Your task to perform on an android device: check android version Image 0: 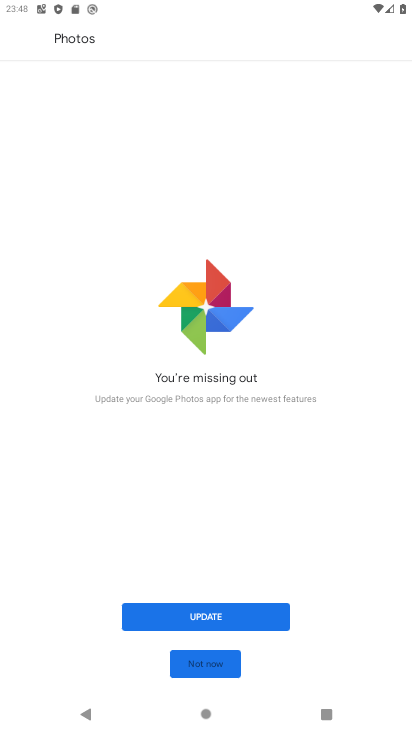
Step 0: press home button
Your task to perform on an android device: check android version Image 1: 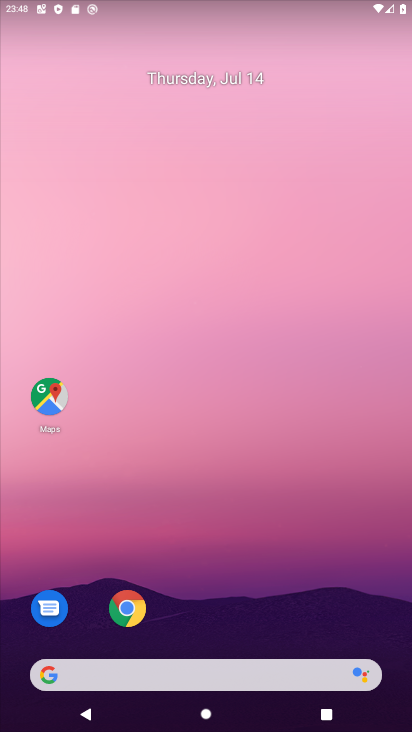
Step 1: drag from (36, 676) to (223, 50)
Your task to perform on an android device: check android version Image 2: 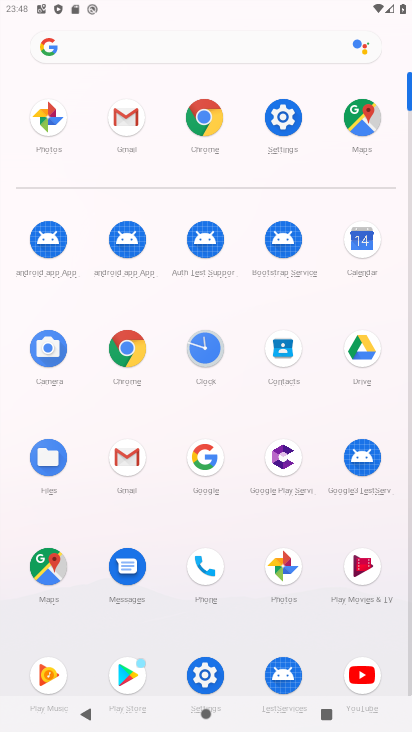
Step 2: click (205, 678)
Your task to perform on an android device: check android version Image 3: 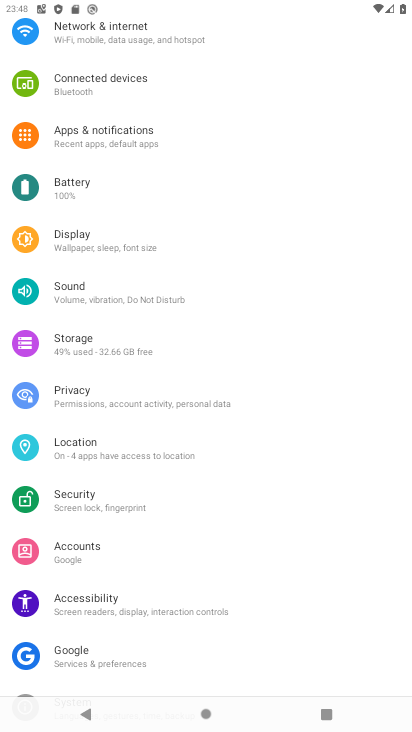
Step 3: drag from (151, 626) to (185, 193)
Your task to perform on an android device: check android version Image 4: 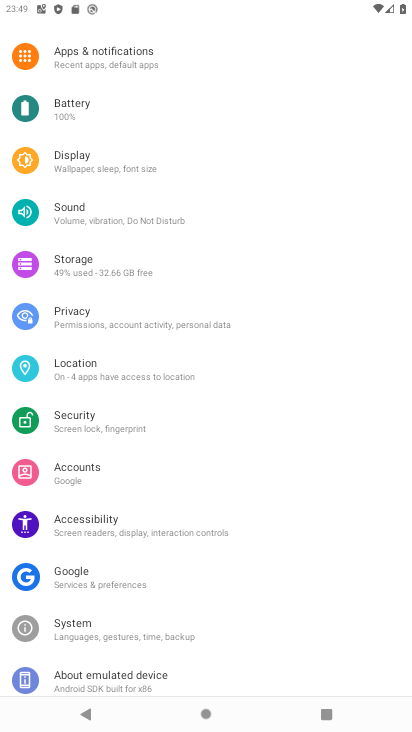
Step 4: drag from (211, 665) to (244, 327)
Your task to perform on an android device: check android version Image 5: 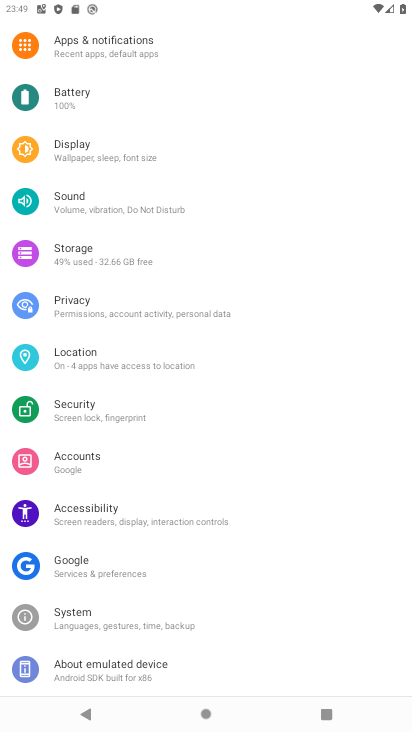
Step 5: click (126, 672)
Your task to perform on an android device: check android version Image 6: 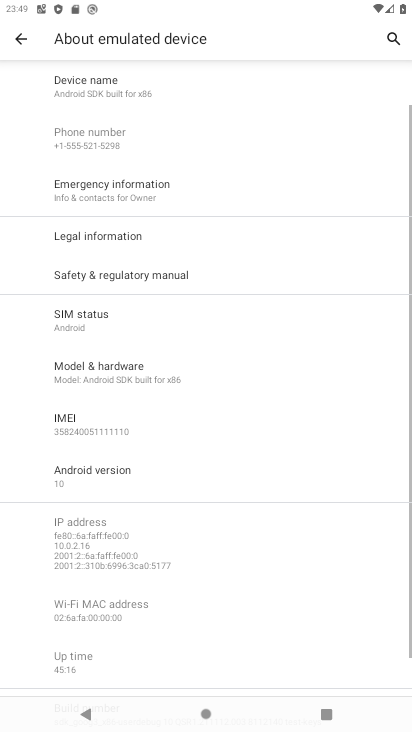
Step 6: click (79, 473)
Your task to perform on an android device: check android version Image 7: 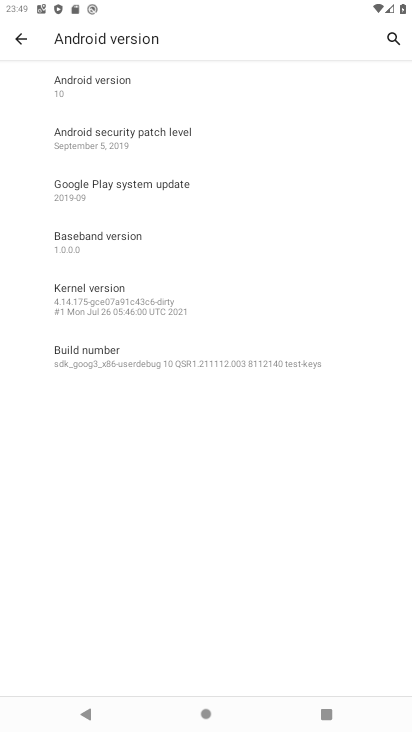
Step 7: task complete